Your task to perform on an android device: read, delete, or share a saved page in the chrome app Image 0: 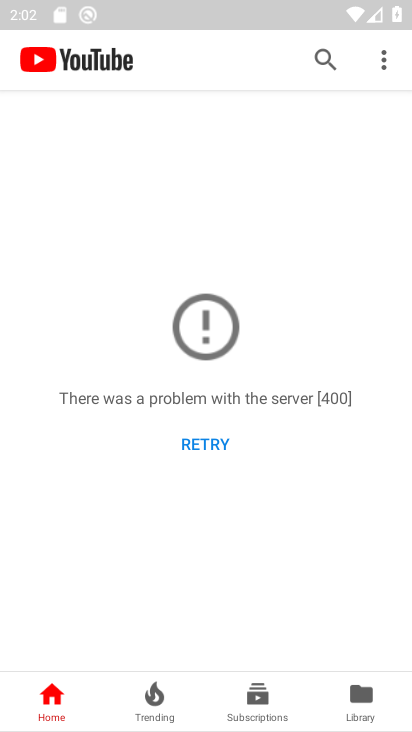
Step 0: press home button
Your task to perform on an android device: read, delete, or share a saved page in the chrome app Image 1: 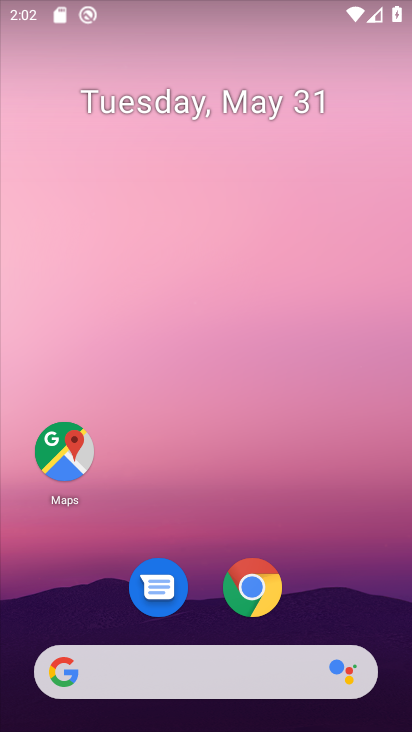
Step 1: click (257, 589)
Your task to perform on an android device: read, delete, or share a saved page in the chrome app Image 2: 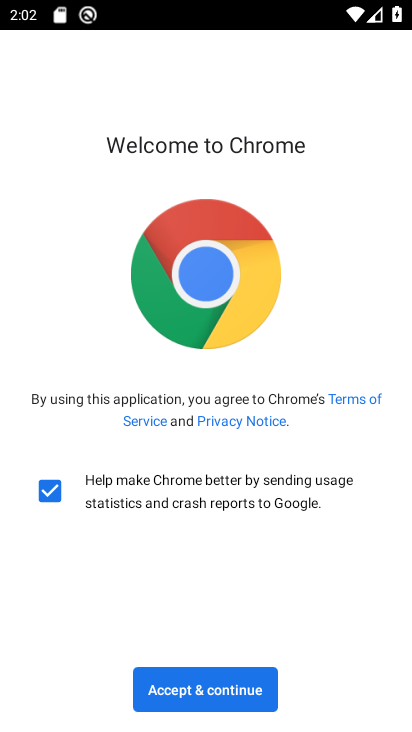
Step 2: click (230, 703)
Your task to perform on an android device: read, delete, or share a saved page in the chrome app Image 3: 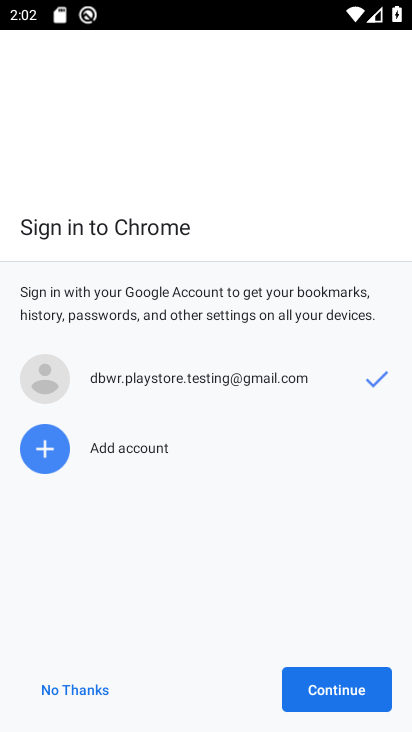
Step 3: click (325, 694)
Your task to perform on an android device: read, delete, or share a saved page in the chrome app Image 4: 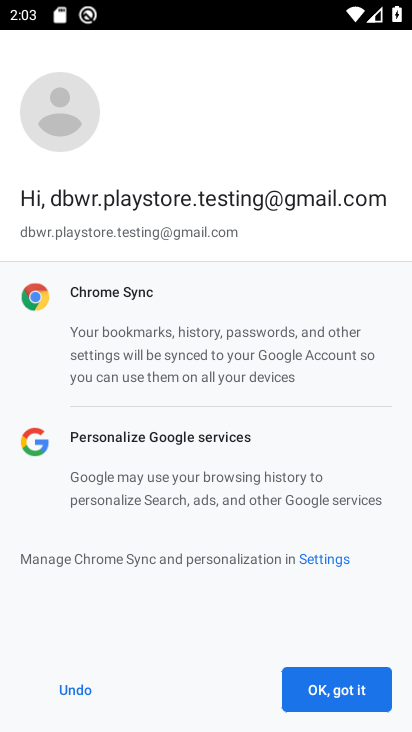
Step 4: click (325, 694)
Your task to perform on an android device: read, delete, or share a saved page in the chrome app Image 5: 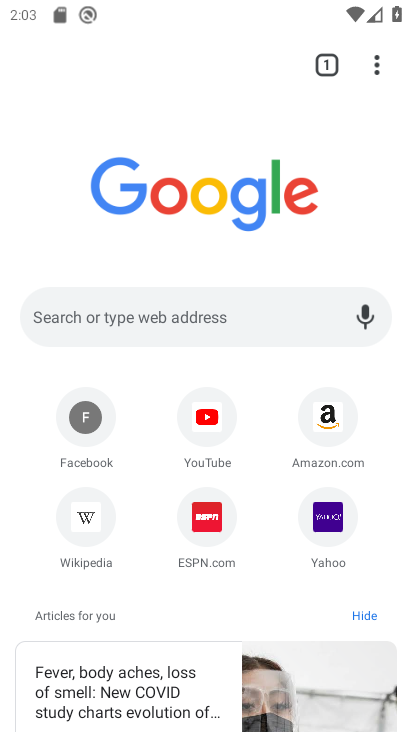
Step 5: click (377, 64)
Your task to perform on an android device: read, delete, or share a saved page in the chrome app Image 6: 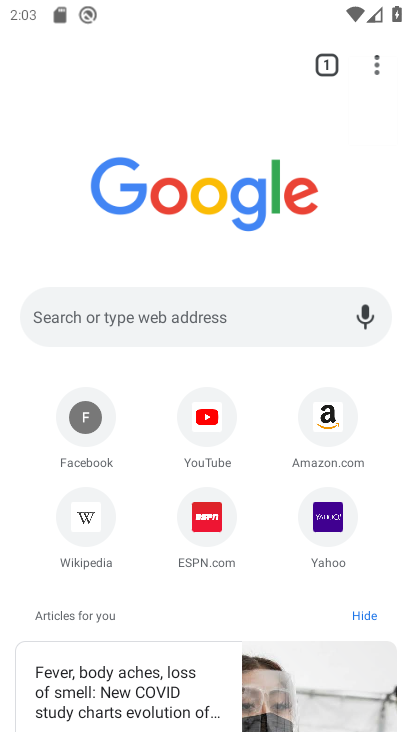
Step 6: click (377, 66)
Your task to perform on an android device: read, delete, or share a saved page in the chrome app Image 7: 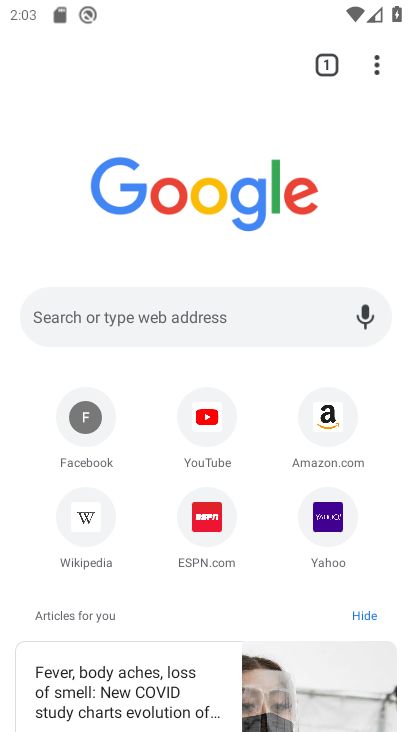
Step 7: click (377, 66)
Your task to perform on an android device: read, delete, or share a saved page in the chrome app Image 8: 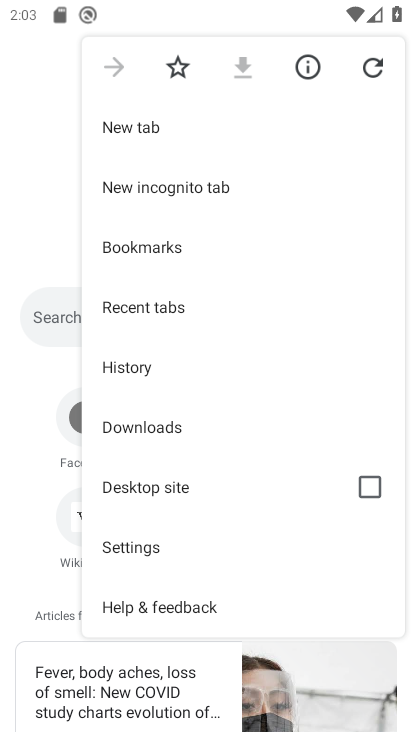
Step 8: click (134, 430)
Your task to perform on an android device: read, delete, or share a saved page in the chrome app Image 9: 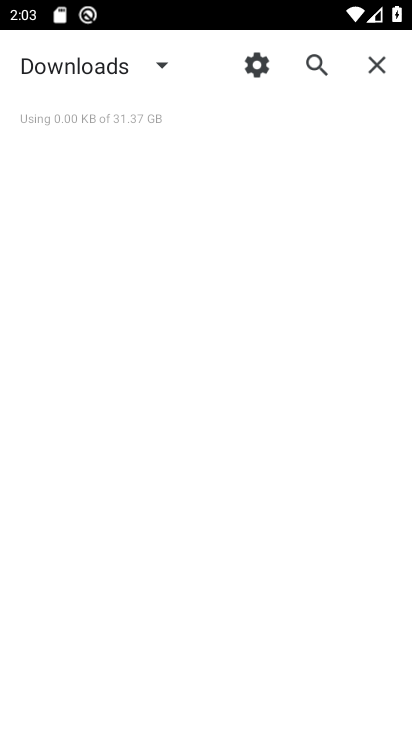
Step 9: click (165, 65)
Your task to perform on an android device: read, delete, or share a saved page in the chrome app Image 10: 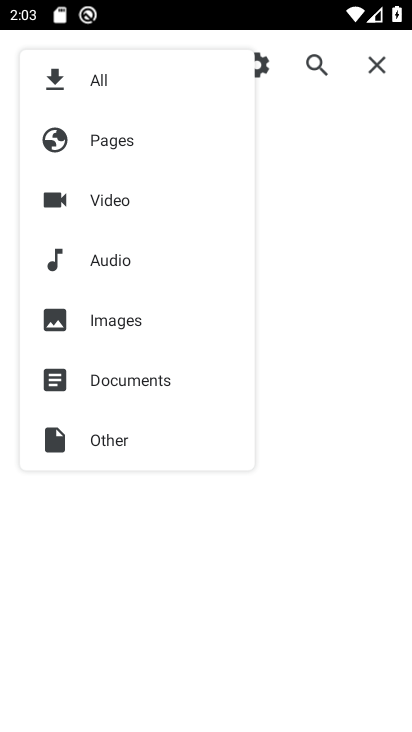
Step 10: click (90, 143)
Your task to perform on an android device: read, delete, or share a saved page in the chrome app Image 11: 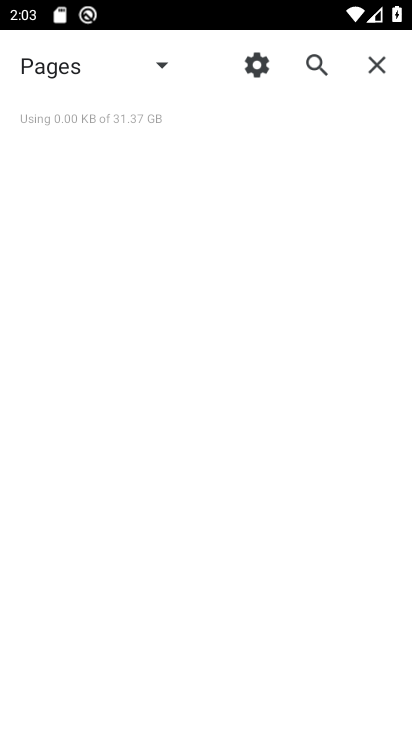
Step 11: task complete